Your task to perform on an android device: change your default location settings in chrome Image 0: 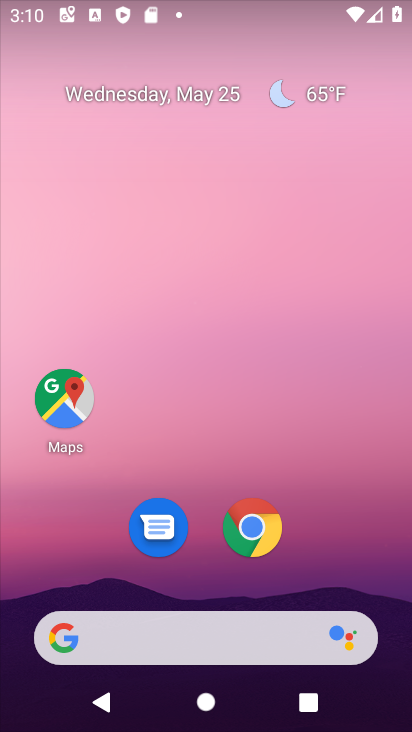
Step 0: drag from (230, 630) to (177, 108)
Your task to perform on an android device: change your default location settings in chrome Image 1: 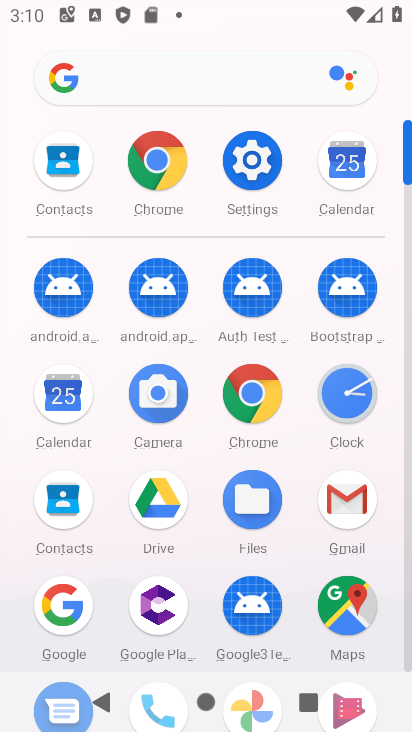
Step 1: click (255, 393)
Your task to perform on an android device: change your default location settings in chrome Image 2: 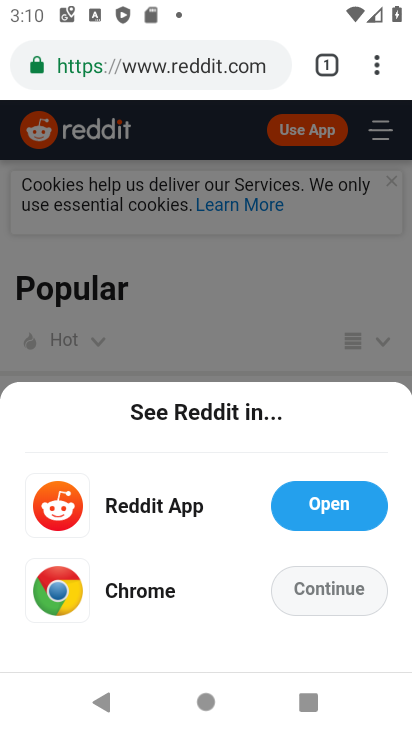
Step 2: drag from (364, 53) to (160, 584)
Your task to perform on an android device: change your default location settings in chrome Image 3: 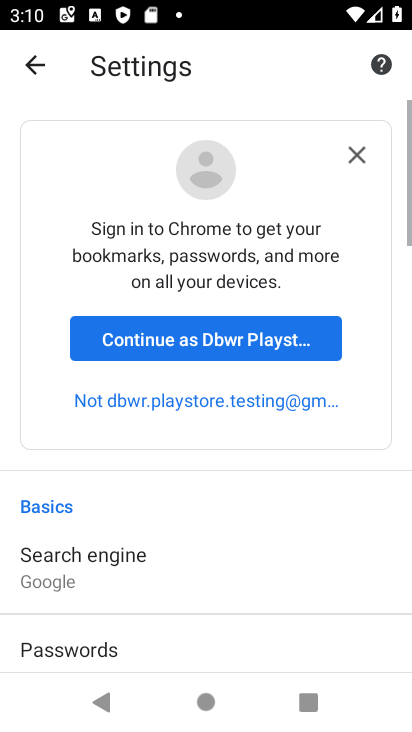
Step 3: drag from (221, 540) to (310, 17)
Your task to perform on an android device: change your default location settings in chrome Image 4: 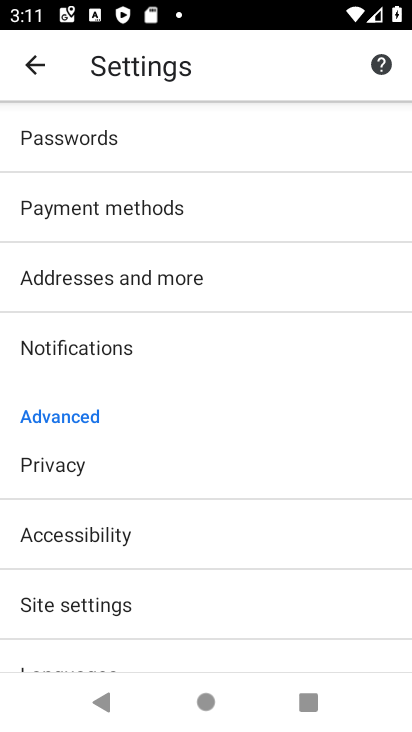
Step 4: drag from (181, 583) to (170, 171)
Your task to perform on an android device: change your default location settings in chrome Image 5: 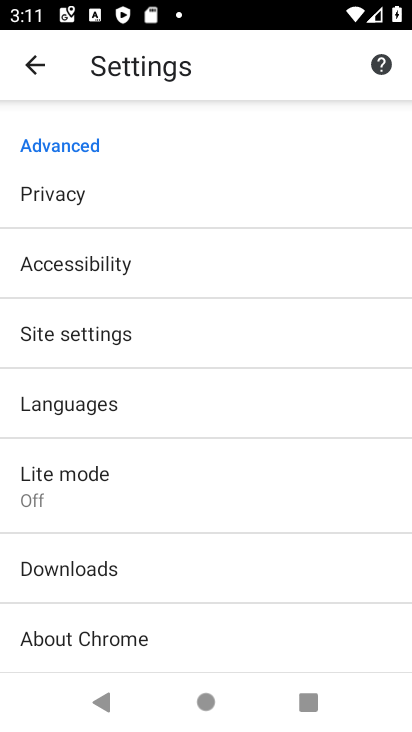
Step 5: click (98, 334)
Your task to perform on an android device: change your default location settings in chrome Image 6: 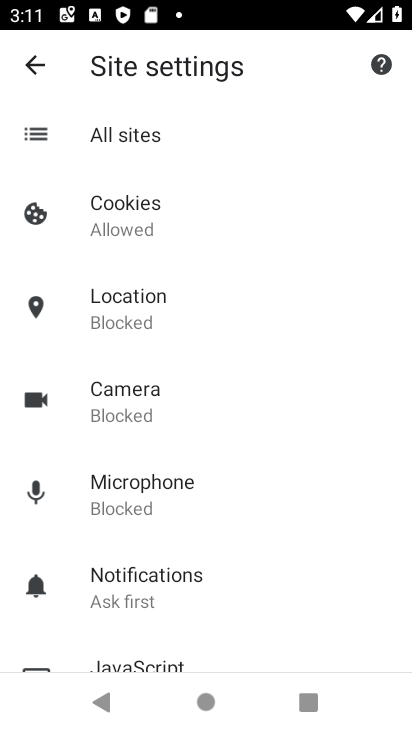
Step 6: click (158, 312)
Your task to perform on an android device: change your default location settings in chrome Image 7: 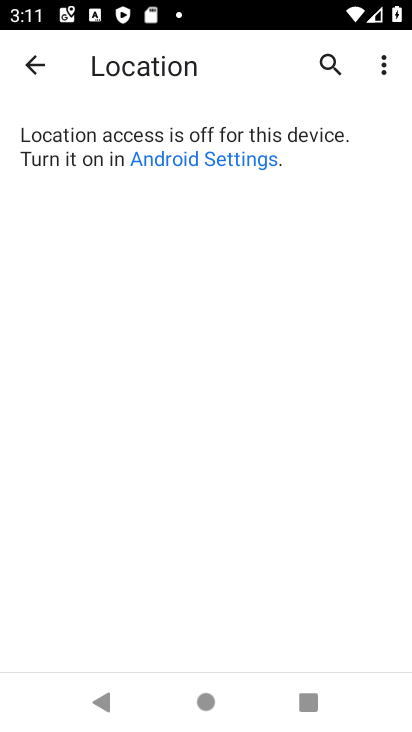
Step 7: task complete